Your task to perform on an android device: delete a single message in the gmail app Image 0: 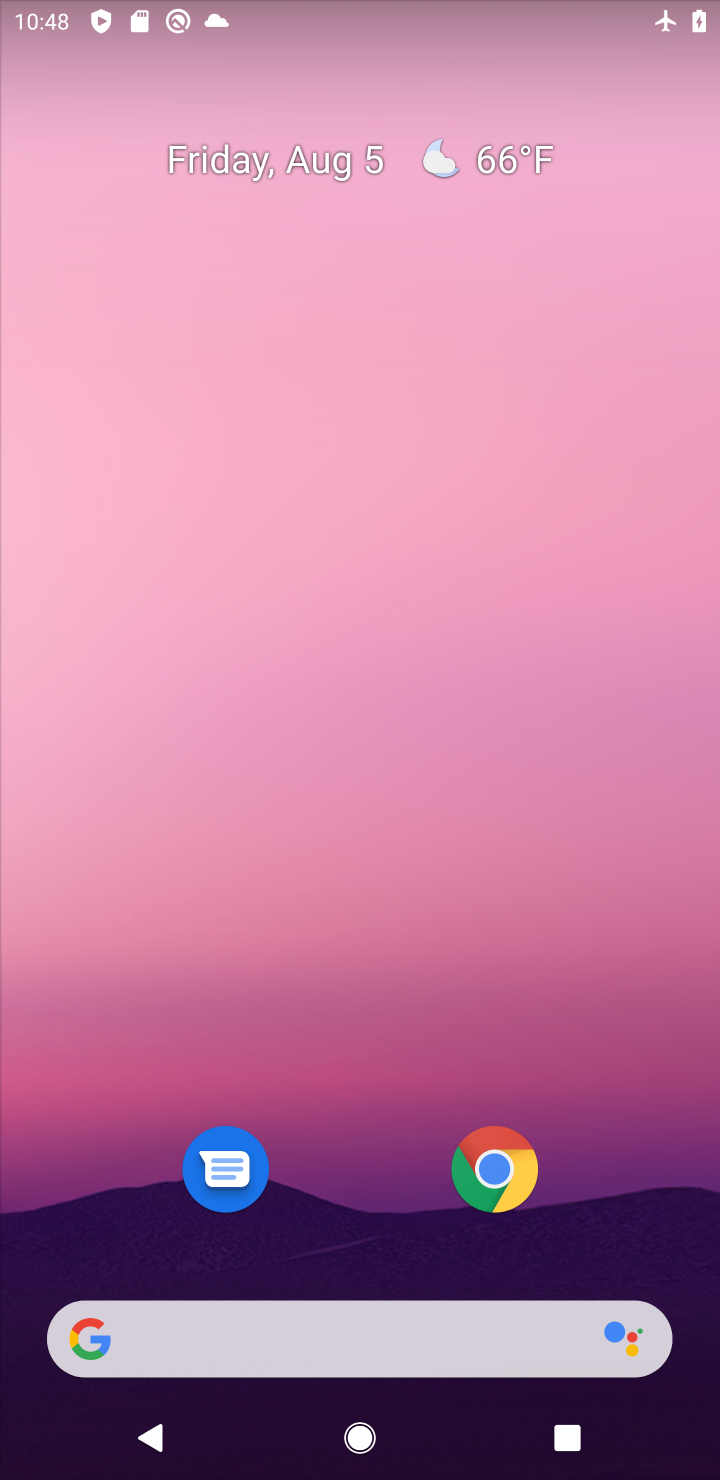
Step 0: drag from (598, 883) to (598, 138)
Your task to perform on an android device: delete a single message in the gmail app Image 1: 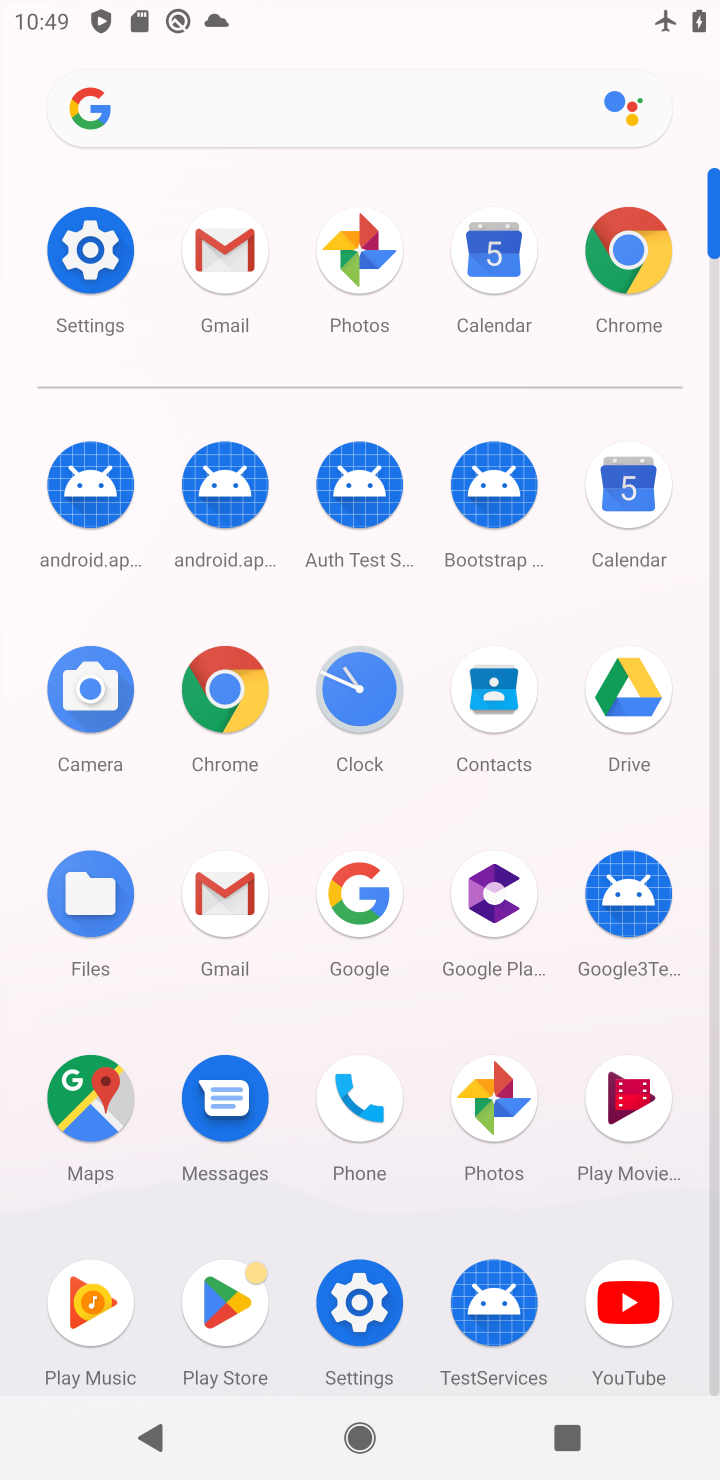
Step 1: click (219, 897)
Your task to perform on an android device: delete a single message in the gmail app Image 2: 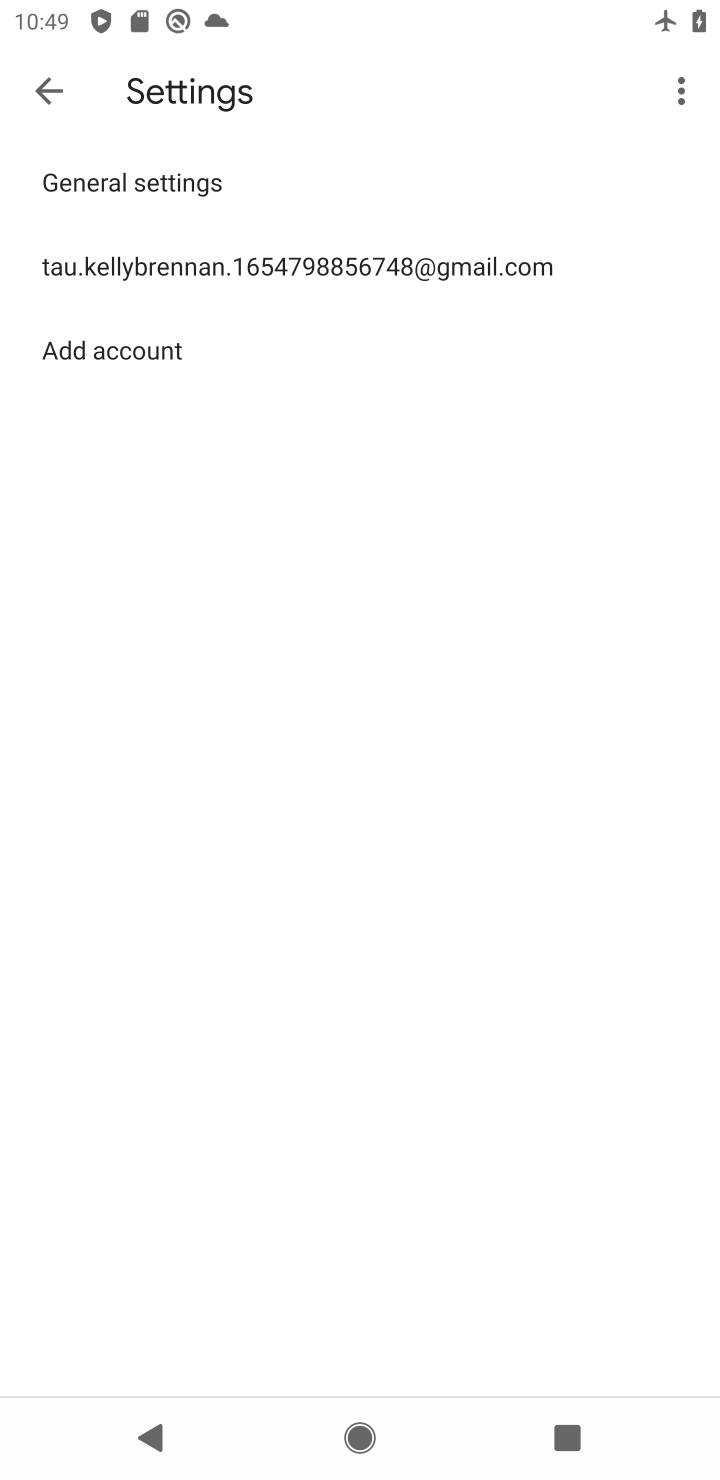
Step 2: press back button
Your task to perform on an android device: delete a single message in the gmail app Image 3: 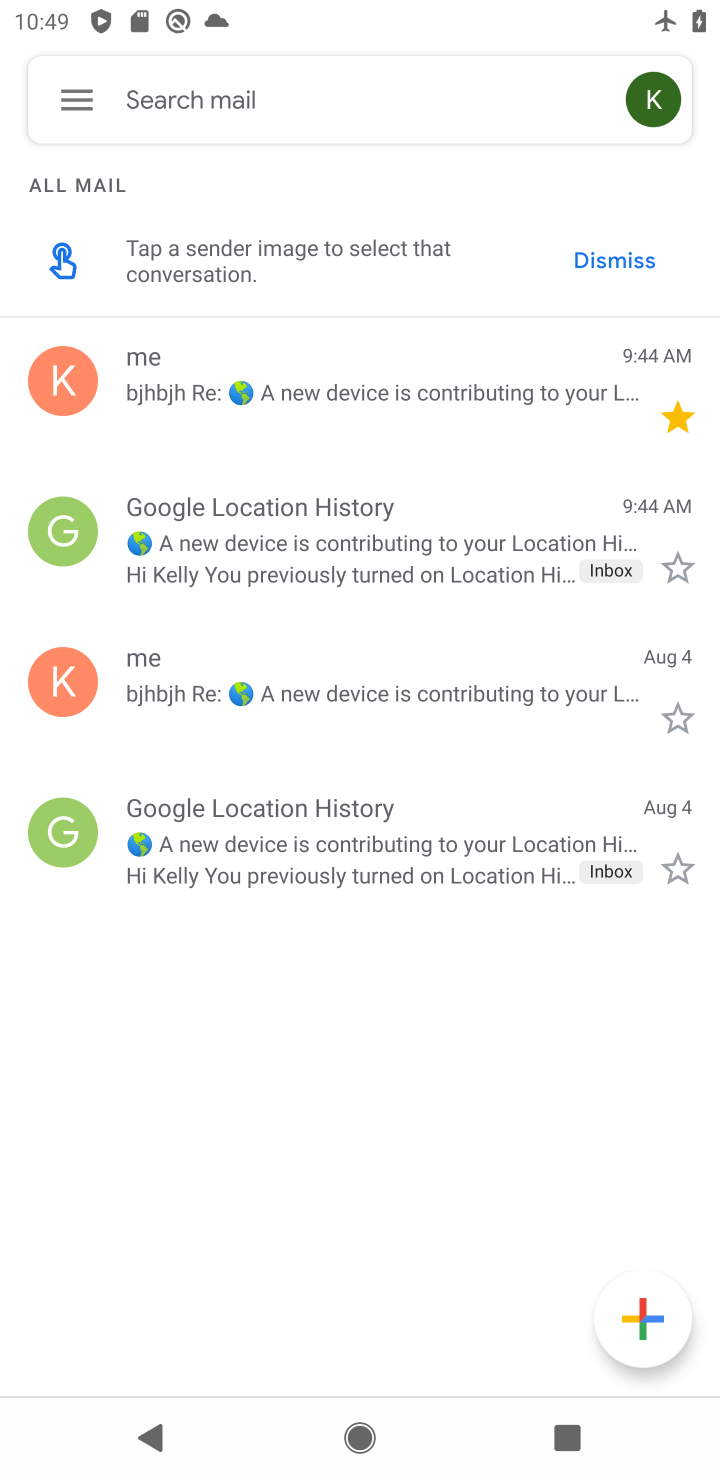
Step 3: click (323, 389)
Your task to perform on an android device: delete a single message in the gmail app Image 4: 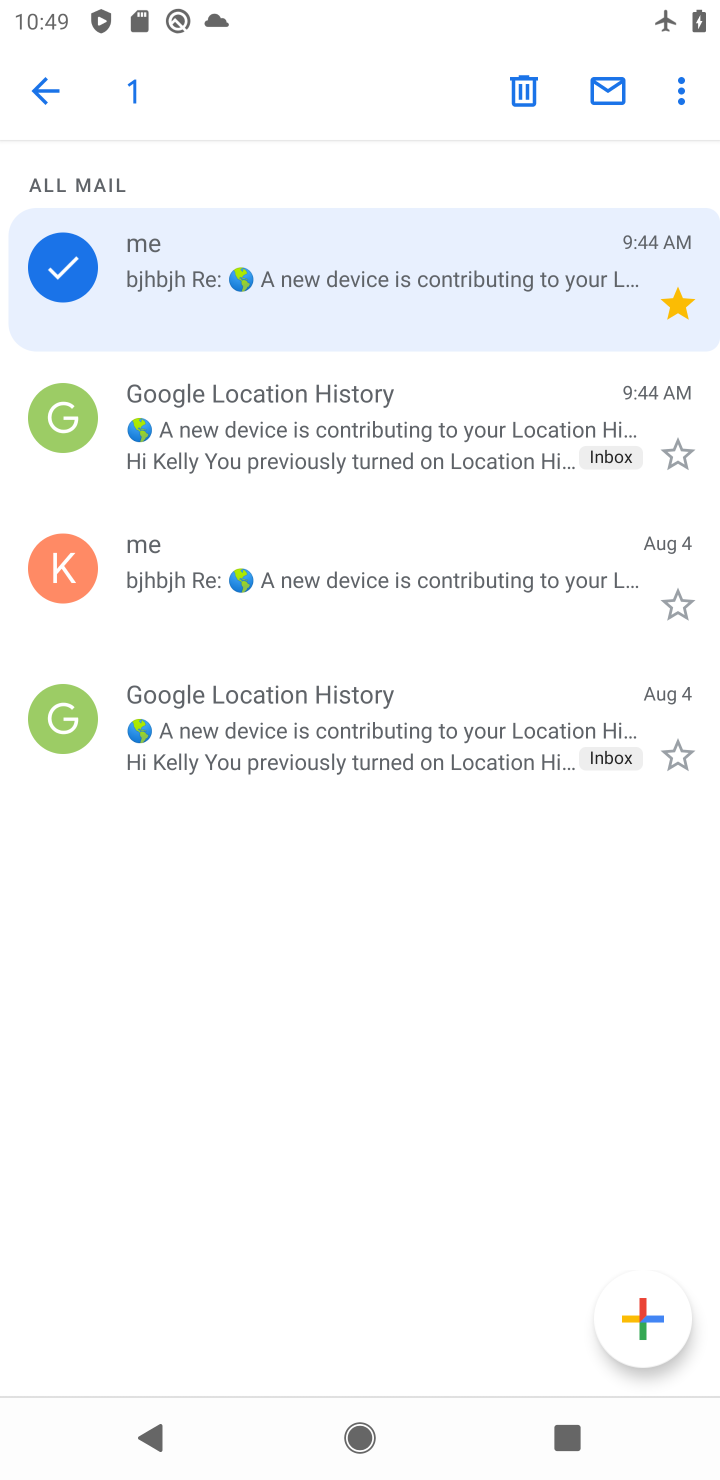
Step 4: click (519, 87)
Your task to perform on an android device: delete a single message in the gmail app Image 5: 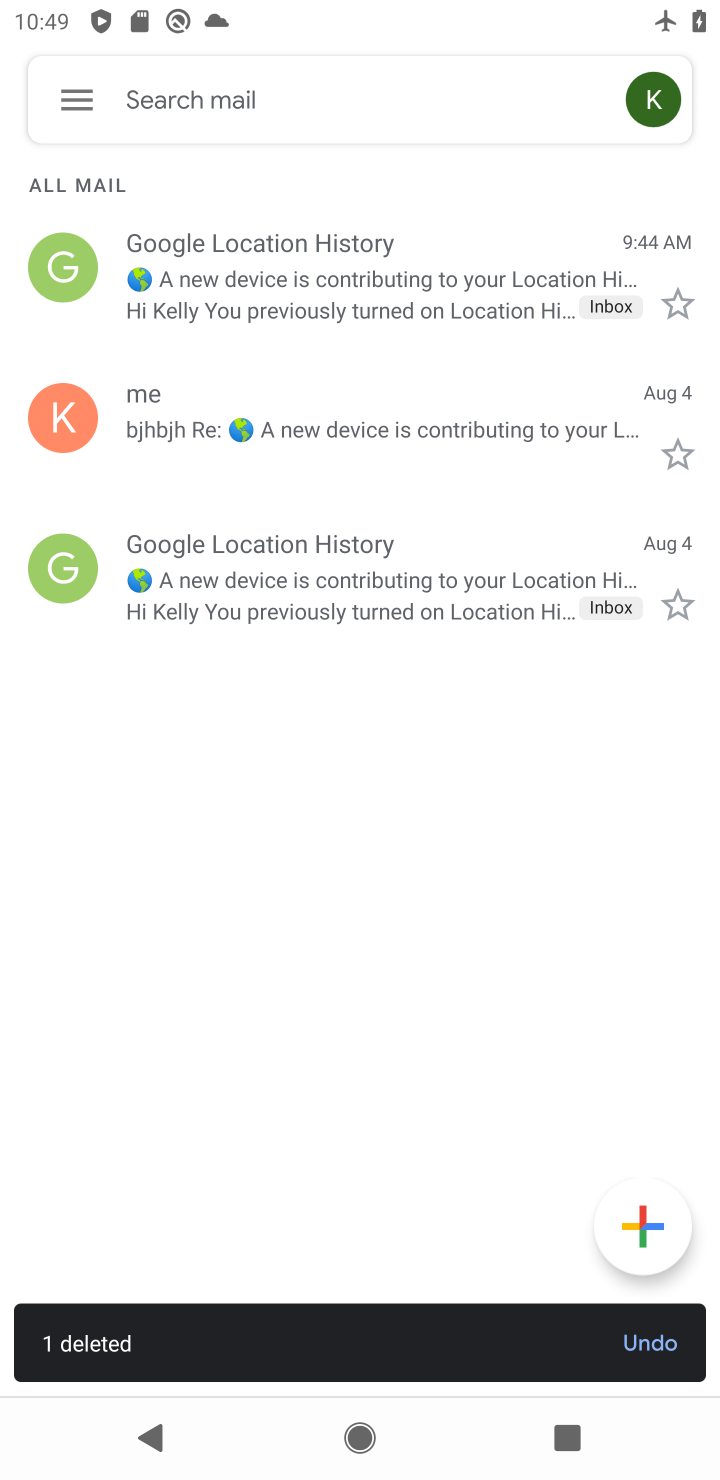
Step 5: task complete